Your task to perform on an android device: Open the web browser Image 0: 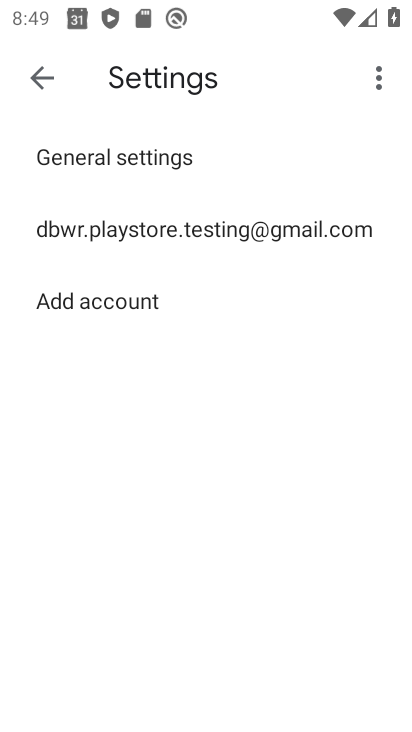
Step 0: drag from (325, 547) to (328, 425)
Your task to perform on an android device: Open the web browser Image 1: 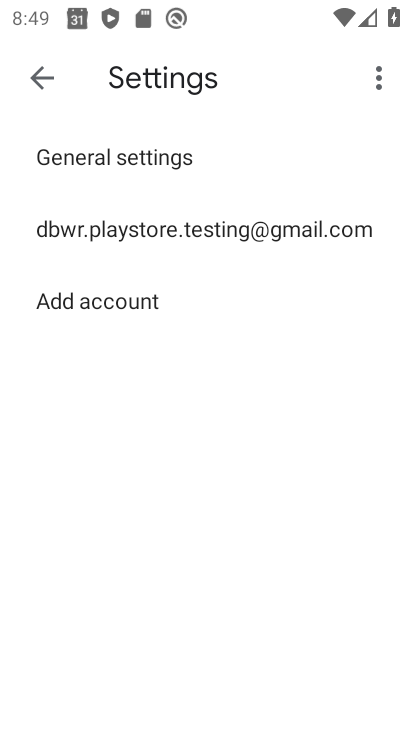
Step 1: press back button
Your task to perform on an android device: Open the web browser Image 2: 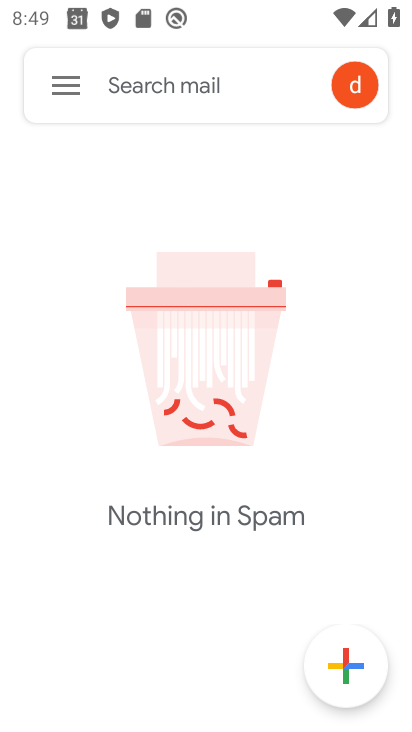
Step 2: press back button
Your task to perform on an android device: Open the web browser Image 3: 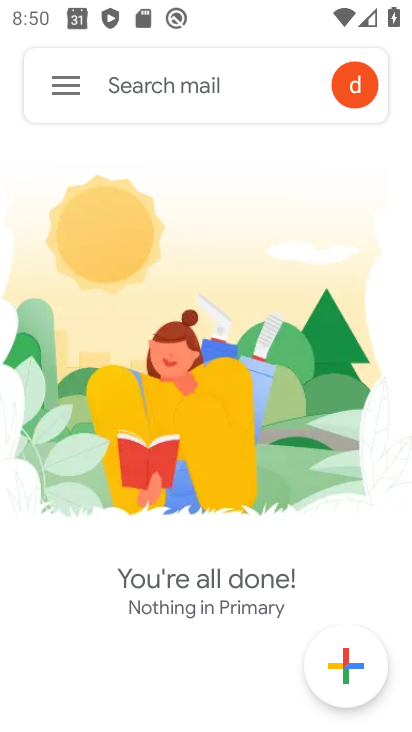
Step 3: press back button
Your task to perform on an android device: Open the web browser Image 4: 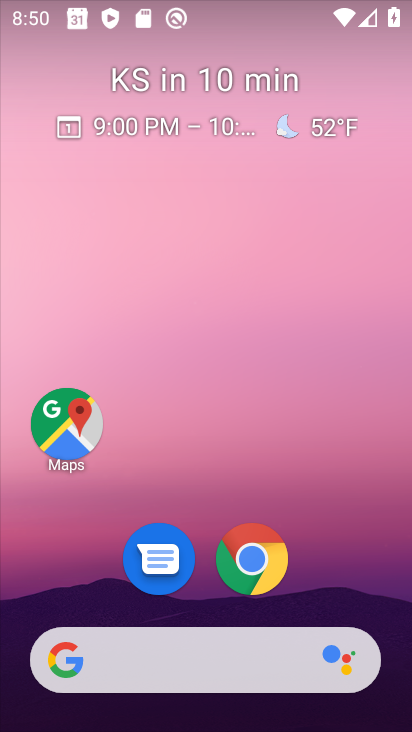
Step 4: click (247, 557)
Your task to perform on an android device: Open the web browser Image 5: 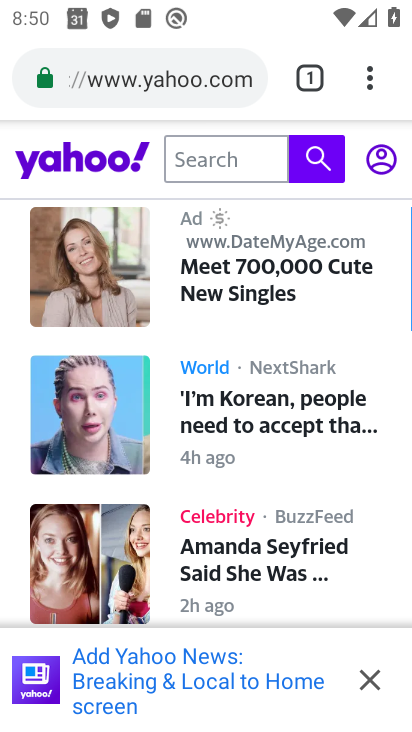
Step 5: task complete